Your task to perform on an android device: Open ESPN.com Image 0: 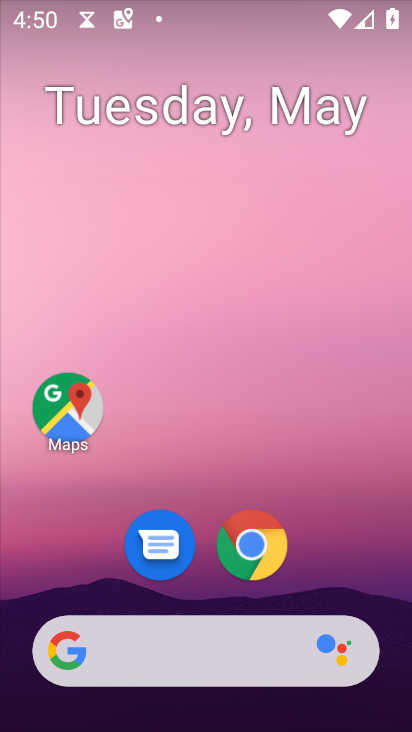
Step 0: click (252, 540)
Your task to perform on an android device: Open ESPN.com Image 1: 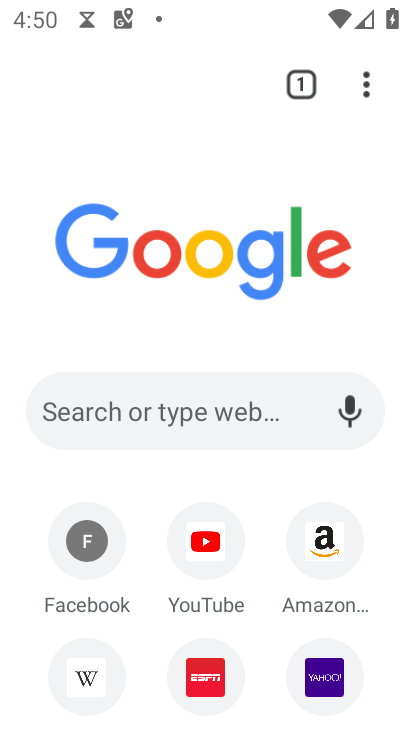
Step 1: click (200, 404)
Your task to perform on an android device: Open ESPN.com Image 2: 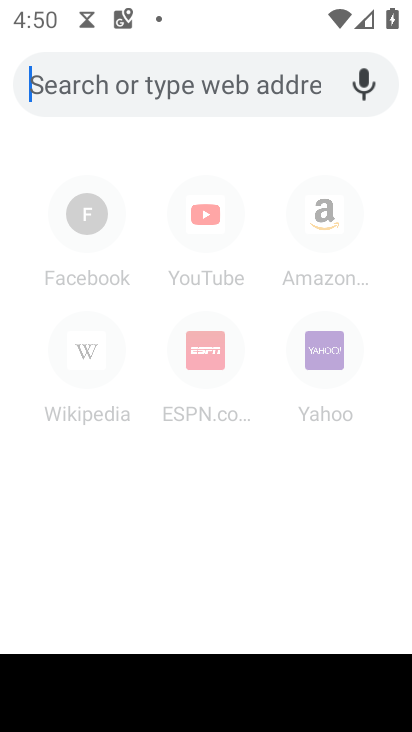
Step 2: click (211, 75)
Your task to perform on an android device: Open ESPN.com Image 3: 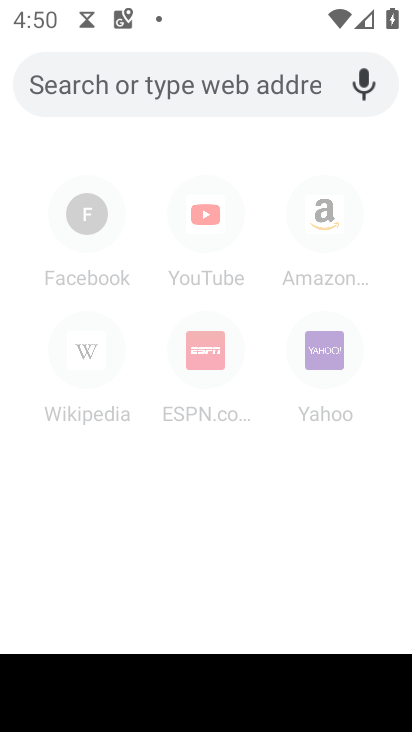
Step 3: type "ESPN.com"
Your task to perform on an android device: Open ESPN.com Image 4: 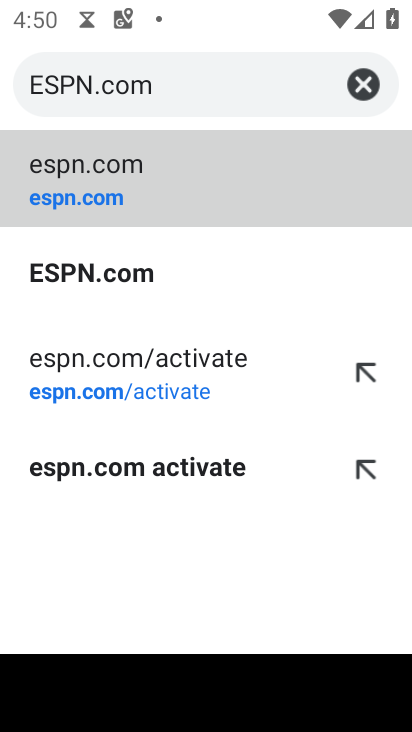
Step 4: click (139, 276)
Your task to perform on an android device: Open ESPN.com Image 5: 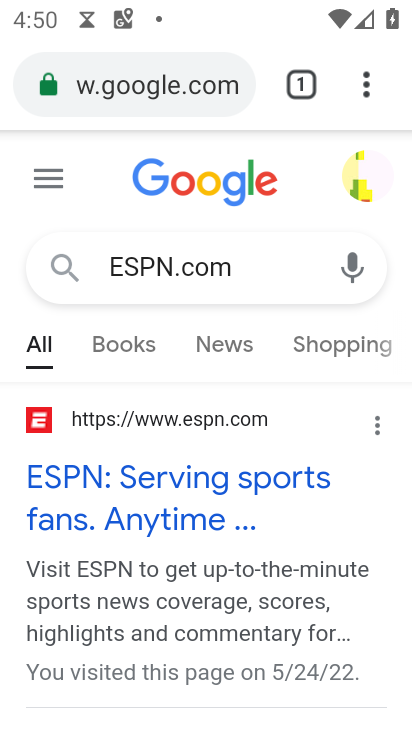
Step 5: click (193, 471)
Your task to perform on an android device: Open ESPN.com Image 6: 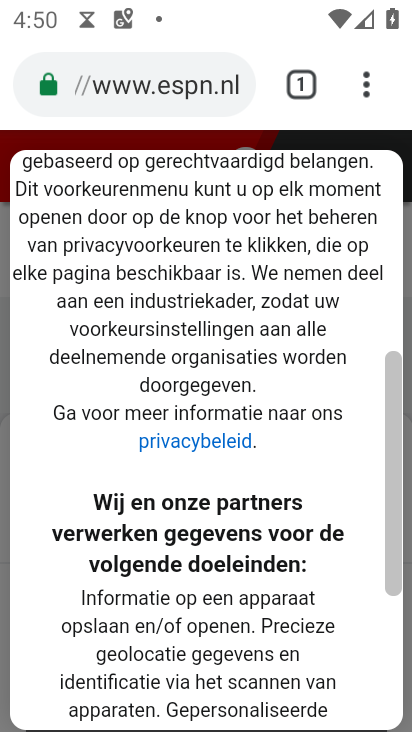
Step 6: task complete